Your task to perform on an android device: see creations saved in the google photos Image 0: 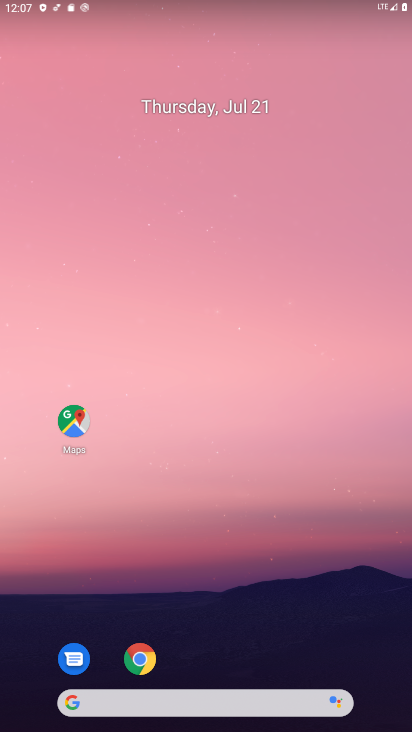
Step 0: drag from (174, 515) to (159, 211)
Your task to perform on an android device: see creations saved in the google photos Image 1: 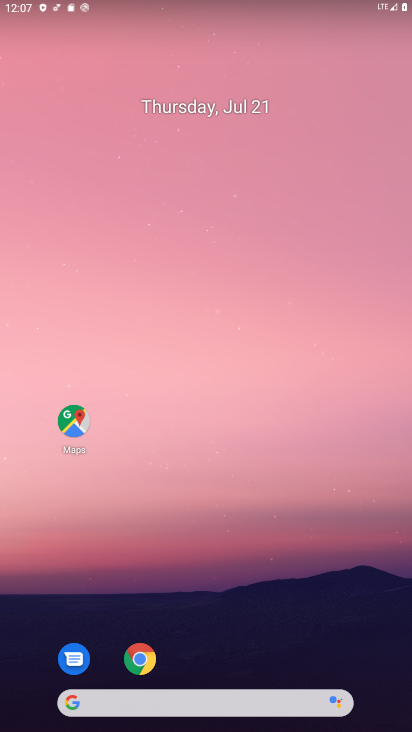
Step 1: drag from (192, 566) to (260, 13)
Your task to perform on an android device: see creations saved in the google photos Image 2: 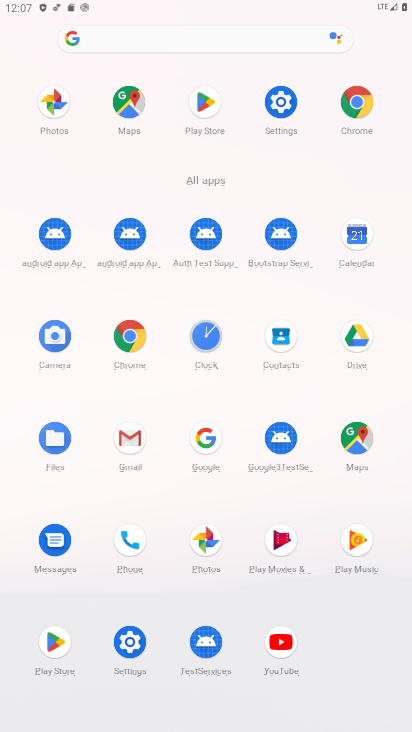
Step 2: click (205, 560)
Your task to perform on an android device: see creations saved in the google photos Image 3: 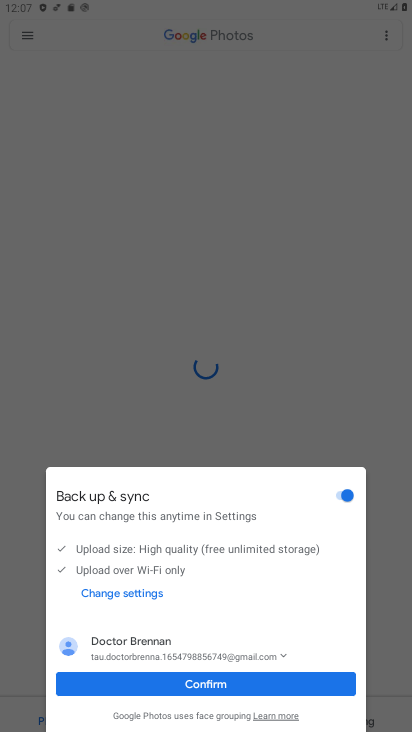
Step 3: click (188, 684)
Your task to perform on an android device: see creations saved in the google photos Image 4: 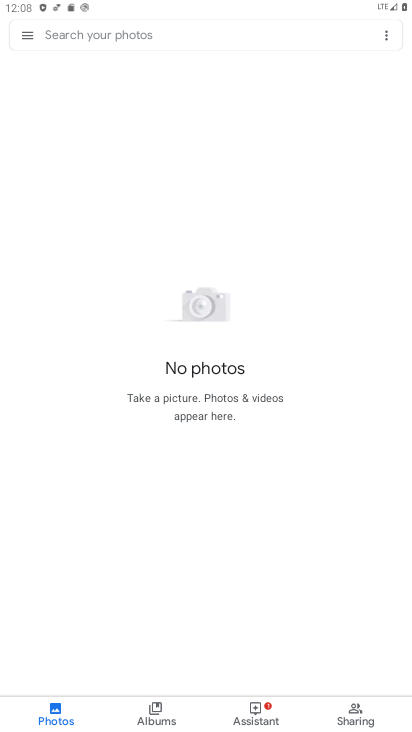
Step 4: click (109, 27)
Your task to perform on an android device: see creations saved in the google photos Image 5: 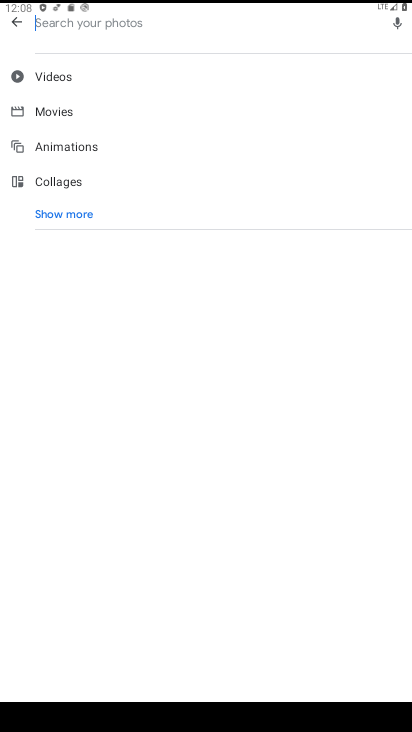
Step 5: click (40, 215)
Your task to perform on an android device: see creations saved in the google photos Image 6: 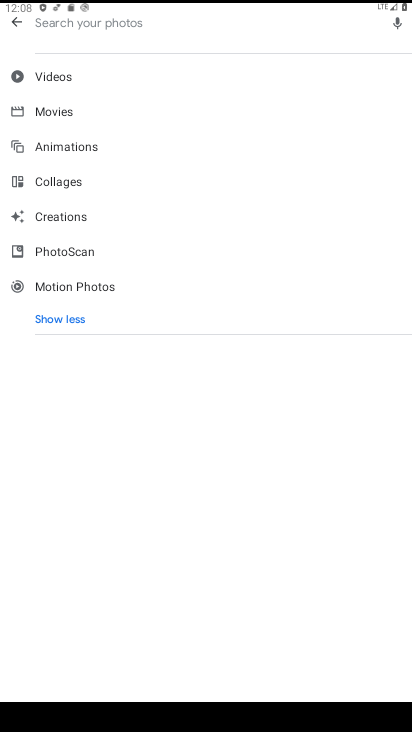
Step 6: click (56, 208)
Your task to perform on an android device: see creations saved in the google photos Image 7: 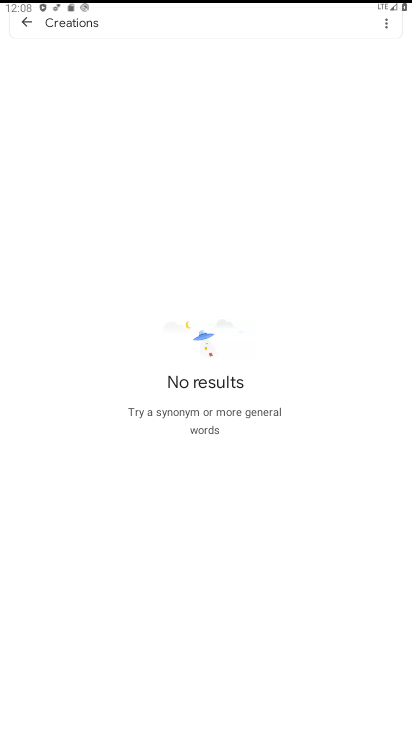
Step 7: task complete